Your task to perform on an android device: Open eBay Image 0: 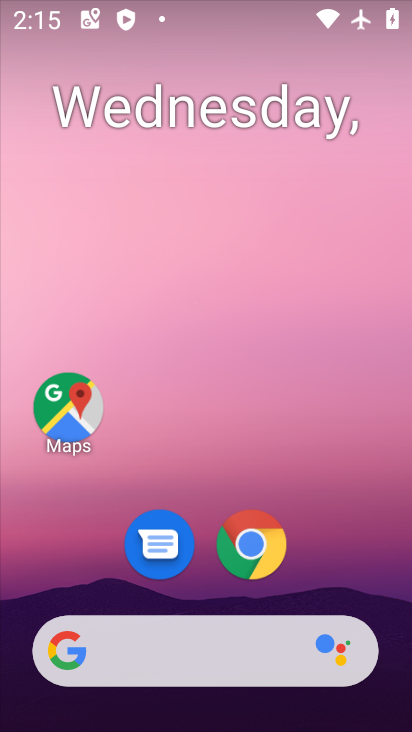
Step 0: drag from (374, 549) to (395, 68)
Your task to perform on an android device: Open eBay Image 1: 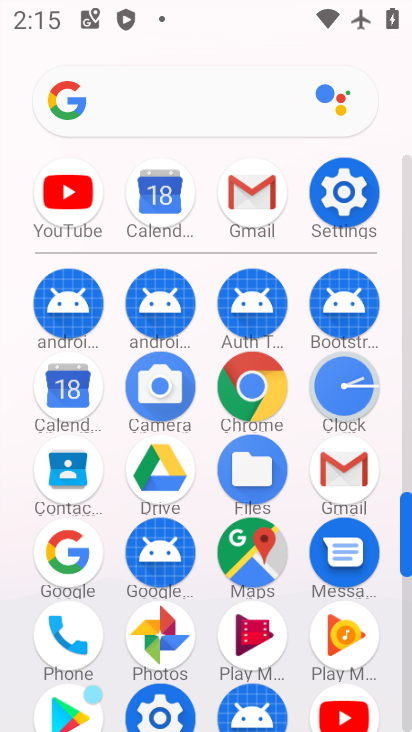
Step 1: click (261, 414)
Your task to perform on an android device: Open eBay Image 2: 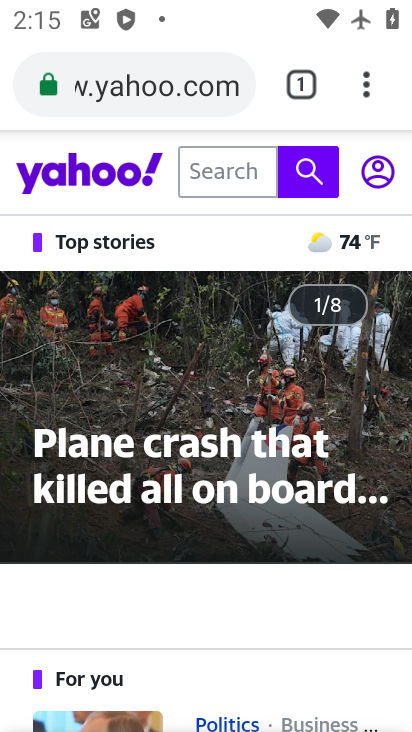
Step 2: click (191, 84)
Your task to perform on an android device: Open eBay Image 3: 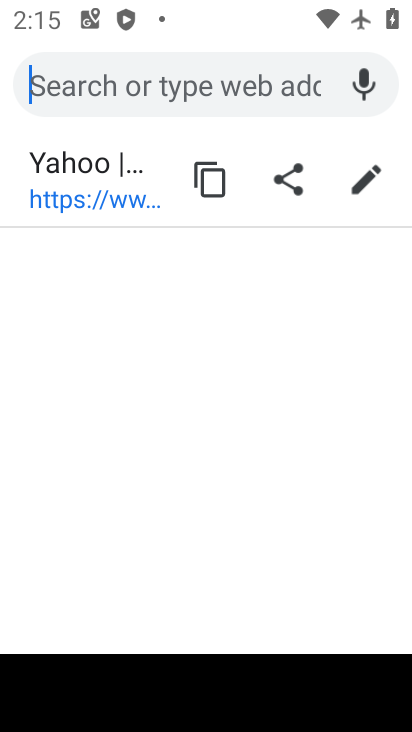
Step 3: type "ebay.com"
Your task to perform on an android device: Open eBay Image 4: 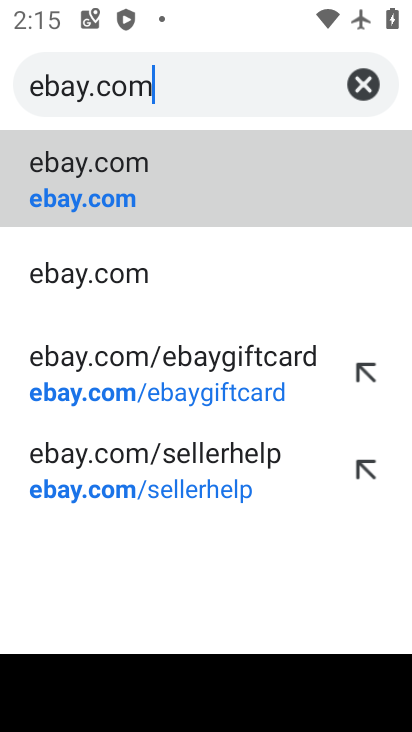
Step 4: click (156, 185)
Your task to perform on an android device: Open eBay Image 5: 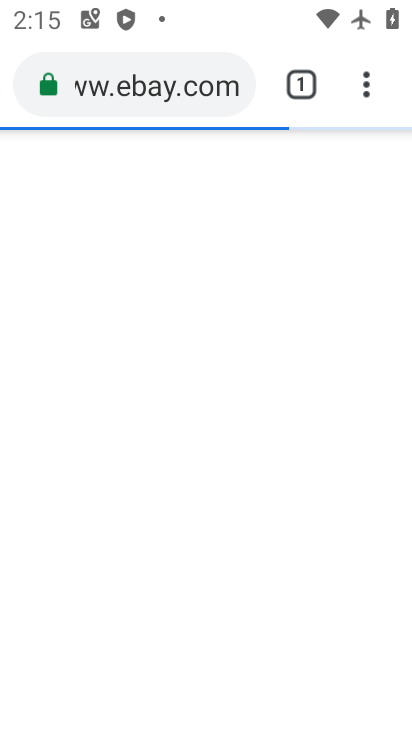
Step 5: task complete